Your task to perform on an android device: Turn off the flashlight Image 0: 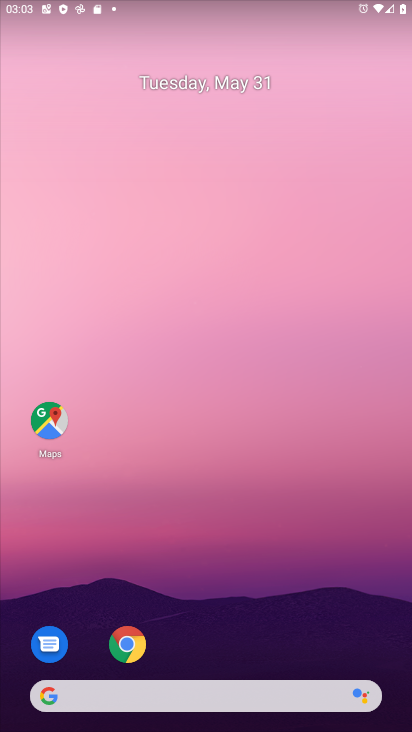
Step 0: drag from (254, 555) to (303, 175)
Your task to perform on an android device: Turn off the flashlight Image 1: 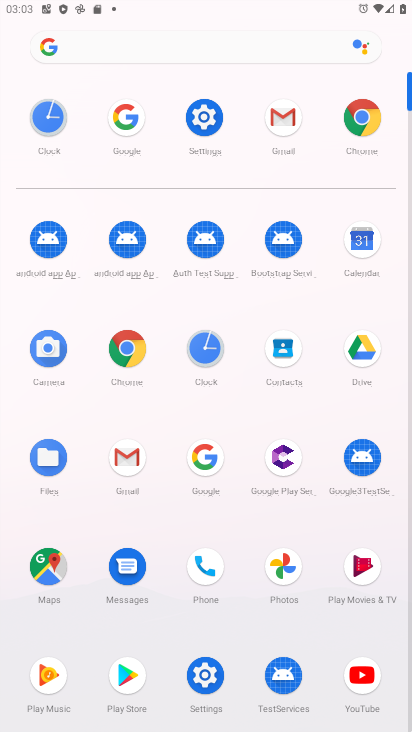
Step 1: click (207, 117)
Your task to perform on an android device: Turn off the flashlight Image 2: 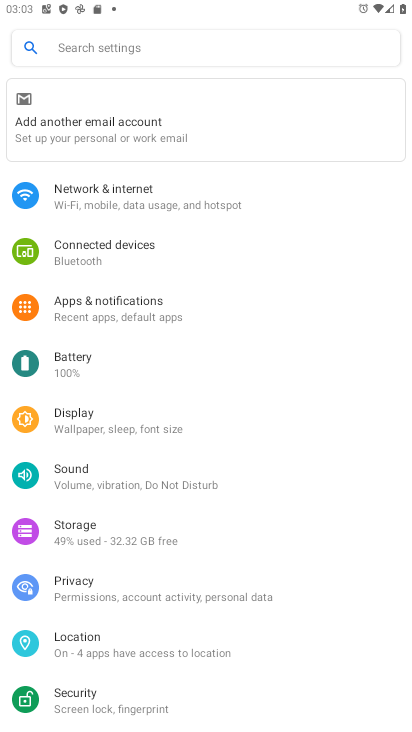
Step 2: click (129, 432)
Your task to perform on an android device: Turn off the flashlight Image 3: 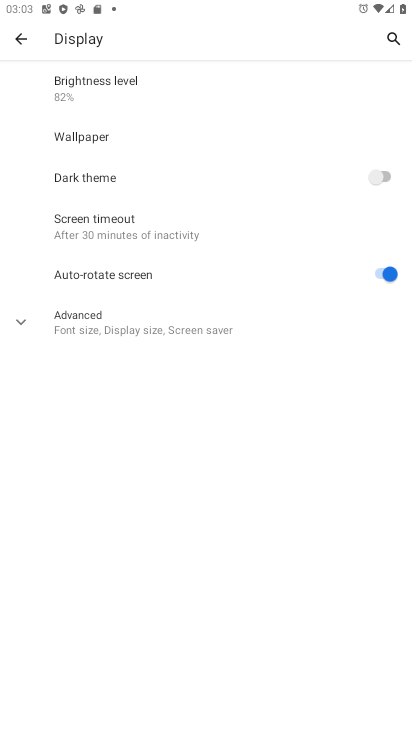
Step 3: task complete